Your task to perform on an android device: Go to Maps Image 0: 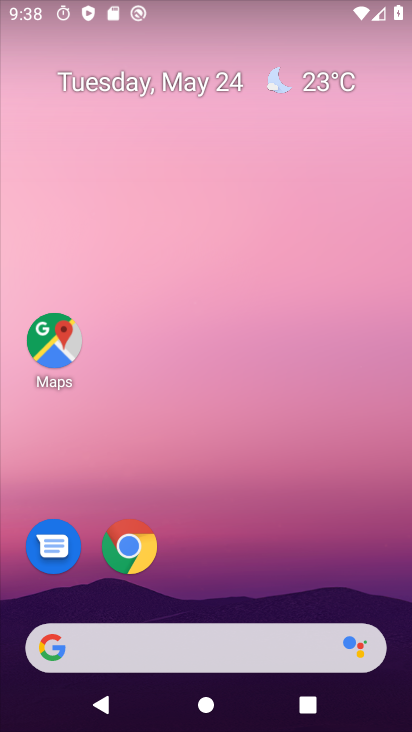
Step 0: click (54, 343)
Your task to perform on an android device: Go to Maps Image 1: 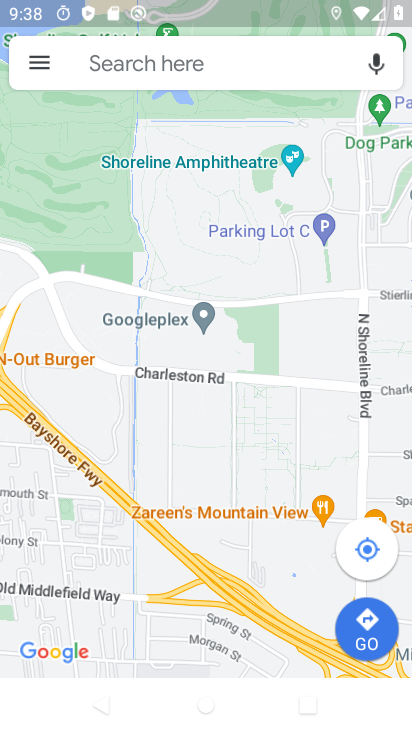
Step 1: task complete